Your task to perform on an android device: allow notifications from all sites in the chrome app Image 0: 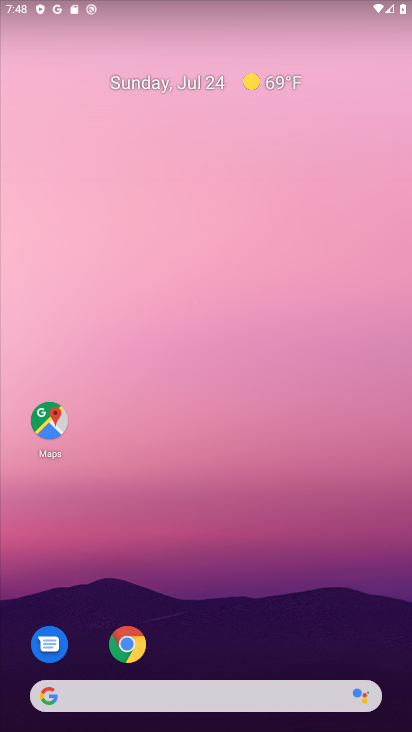
Step 0: click (240, 226)
Your task to perform on an android device: allow notifications from all sites in the chrome app Image 1: 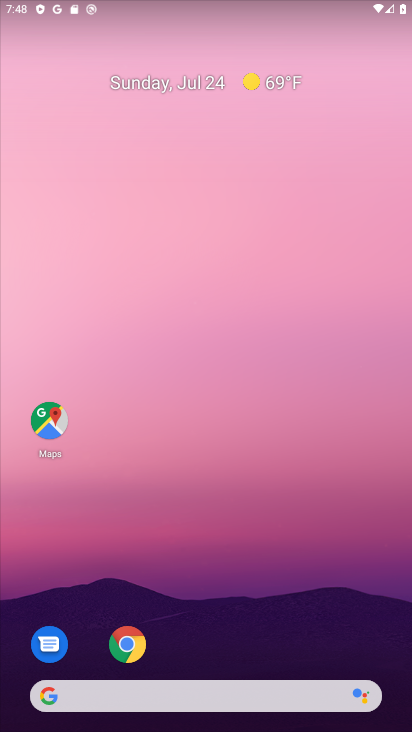
Step 1: drag from (176, 642) to (251, 234)
Your task to perform on an android device: allow notifications from all sites in the chrome app Image 2: 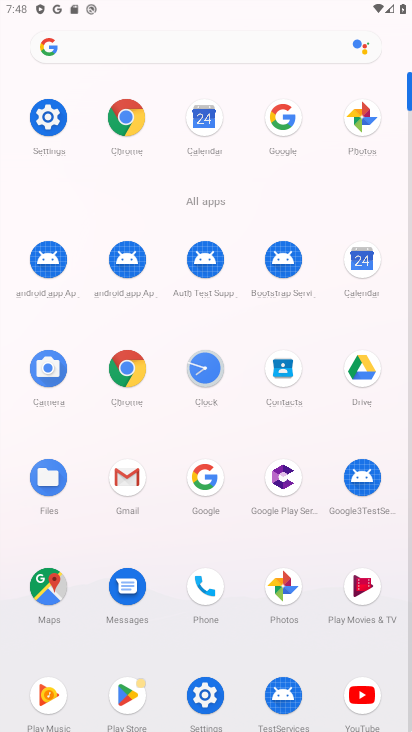
Step 2: click (131, 379)
Your task to perform on an android device: allow notifications from all sites in the chrome app Image 3: 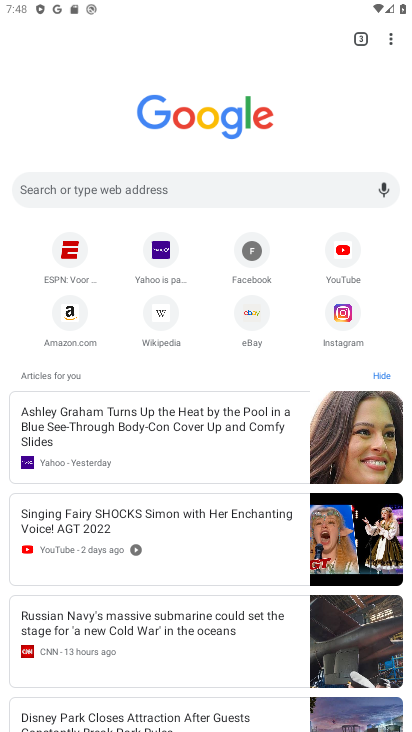
Step 3: click (390, 35)
Your task to perform on an android device: allow notifications from all sites in the chrome app Image 4: 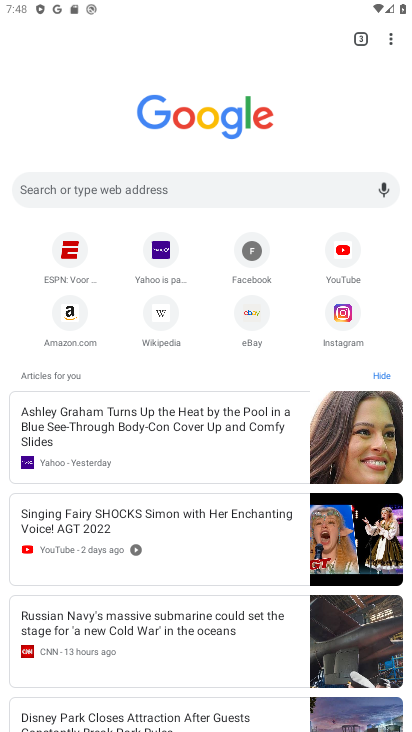
Step 4: click (390, 35)
Your task to perform on an android device: allow notifications from all sites in the chrome app Image 5: 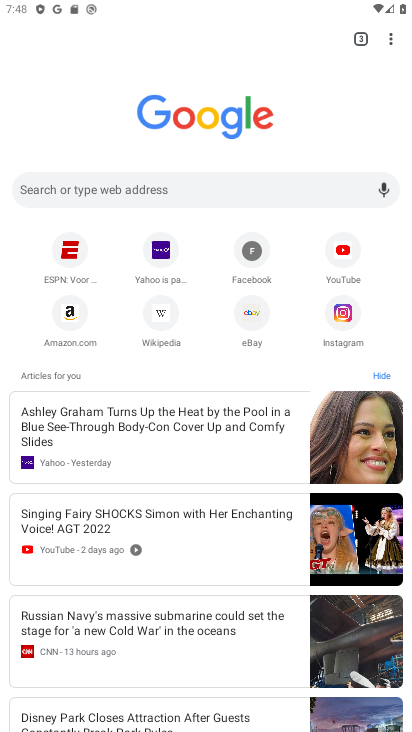
Step 5: click (393, 35)
Your task to perform on an android device: allow notifications from all sites in the chrome app Image 6: 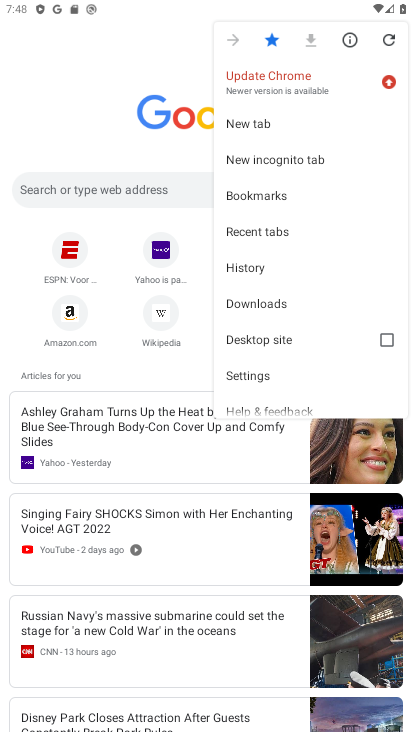
Step 6: click (251, 376)
Your task to perform on an android device: allow notifications from all sites in the chrome app Image 7: 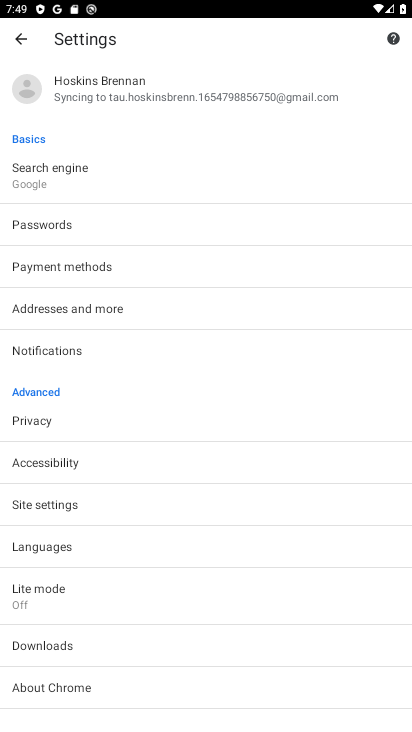
Step 7: click (33, 504)
Your task to perform on an android device: allow notifications from all sites in the chrome app Image 8: 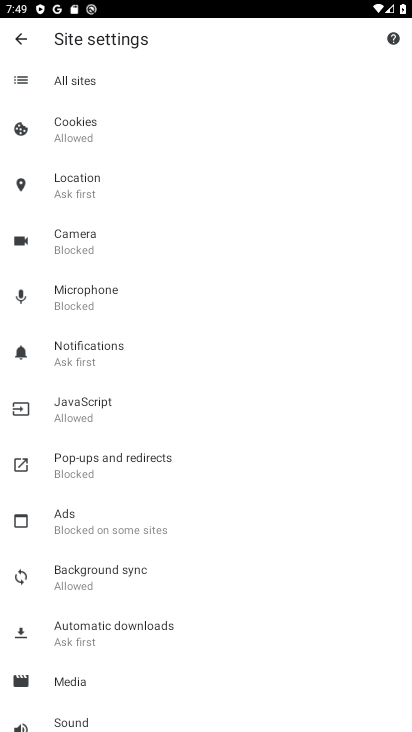
Step 8: click (79, 122)
Your task to perform on an android device: allow notifications from all sites in the chrome app Image 9: 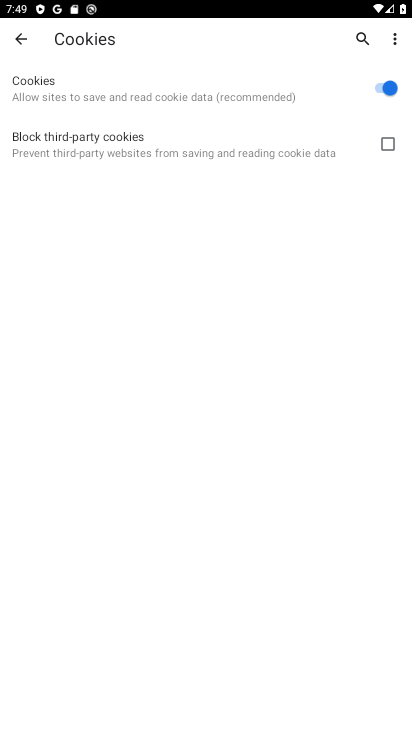
Step 9: task complete